Your task to perform on an android device: open app "Google Play services" Image 0: 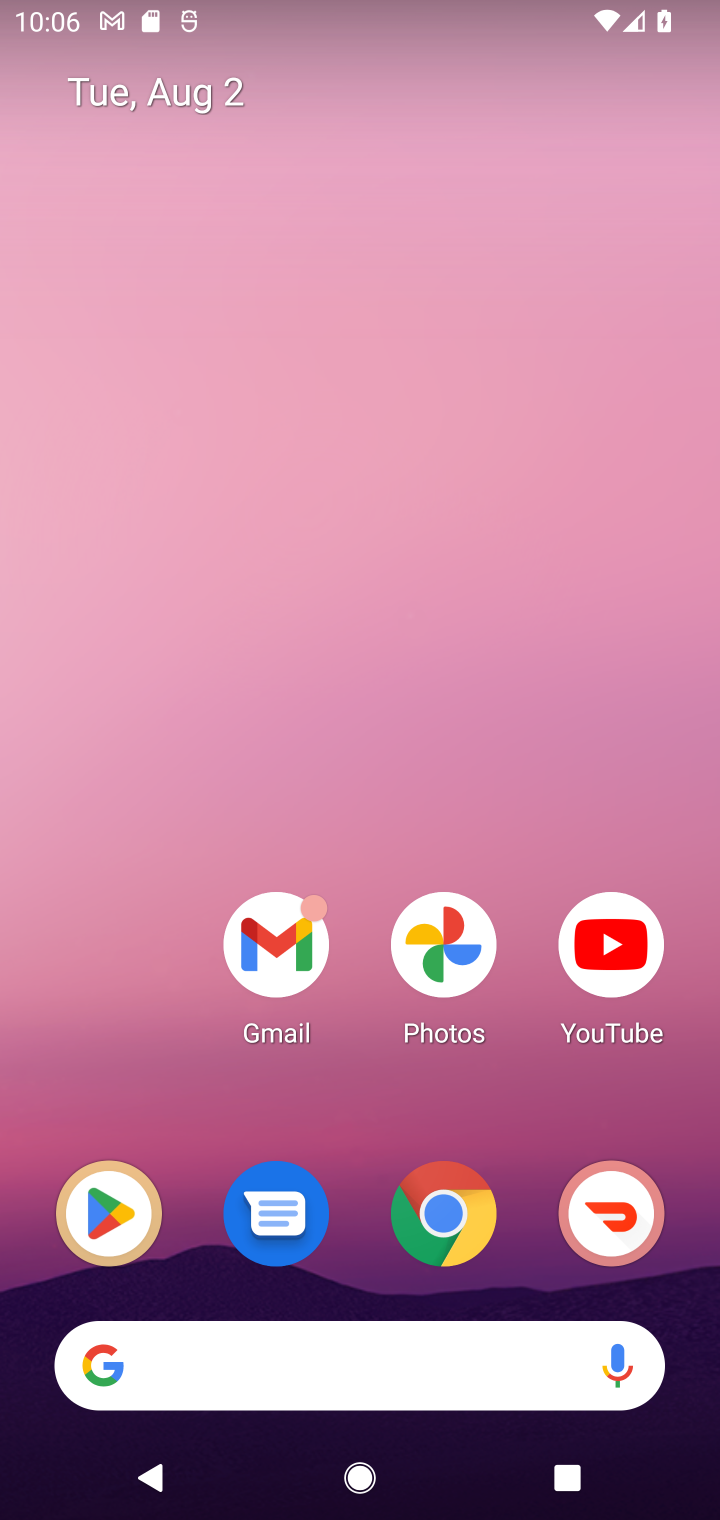
Step 0: drag from (345, 1252) to (421, 106)
Your task to perform on an android device: open app "Google Play services" Image 1: 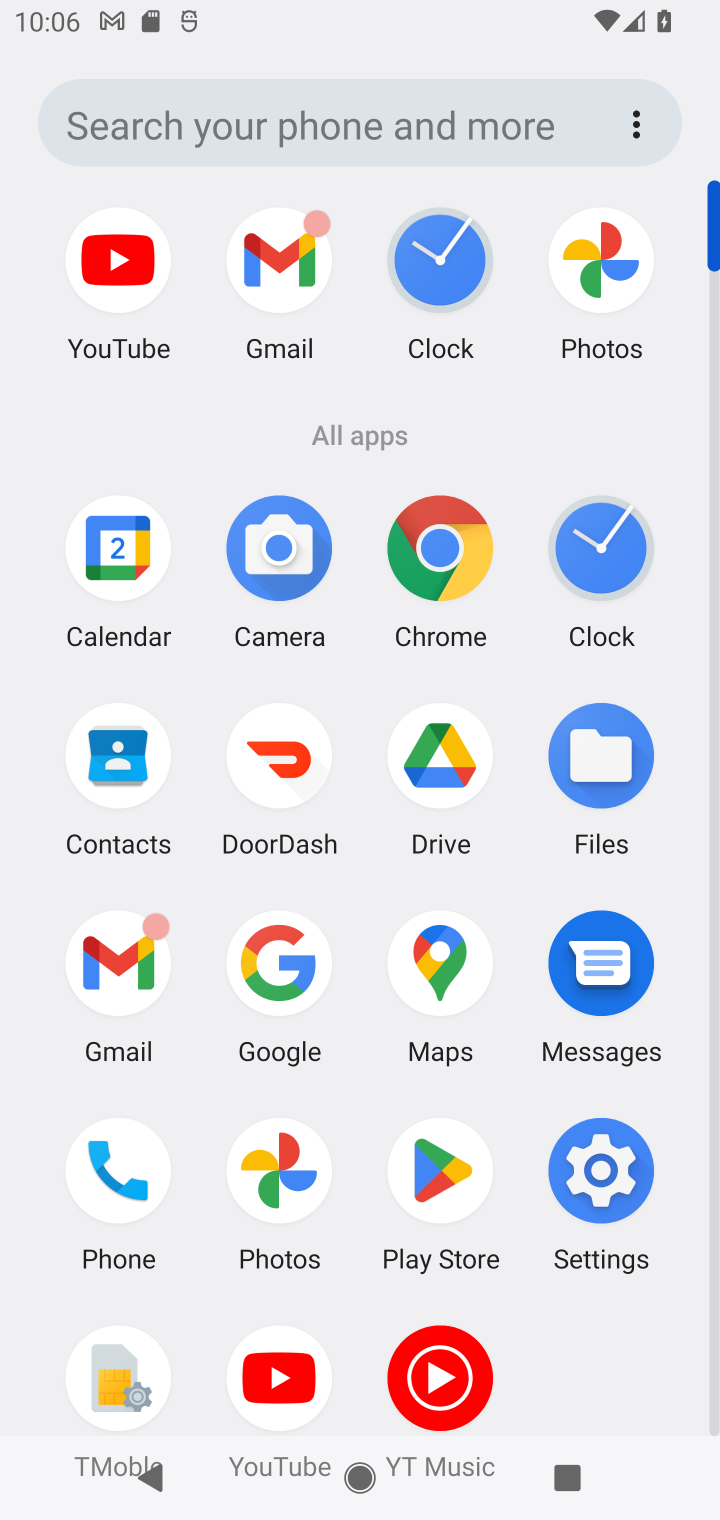
Step 1: click (413, 1229)
Your task to perform on an android device: open app "Google Play services" Image 2: 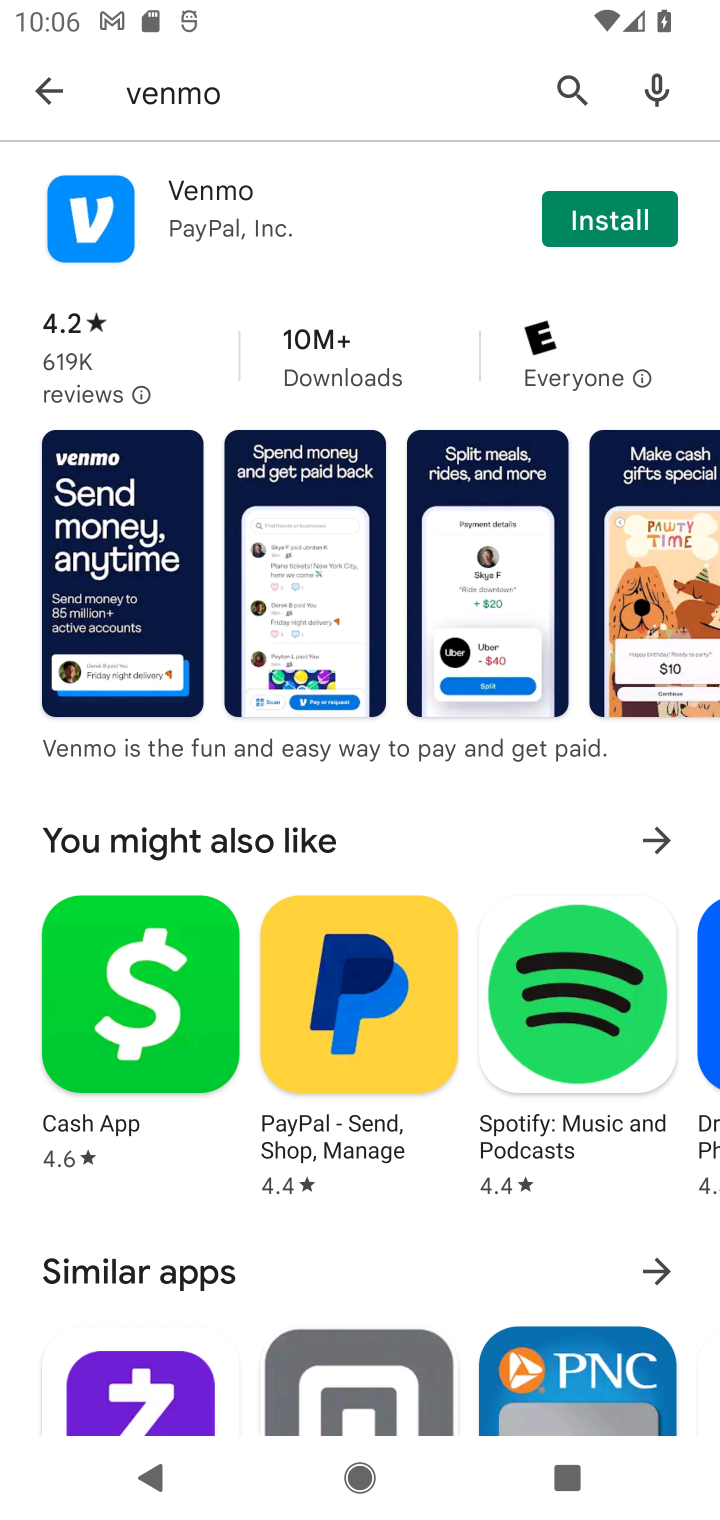
Step 2: click (44, 78)
Your task to perform on an android device: open app "Google Play services" Image 3: 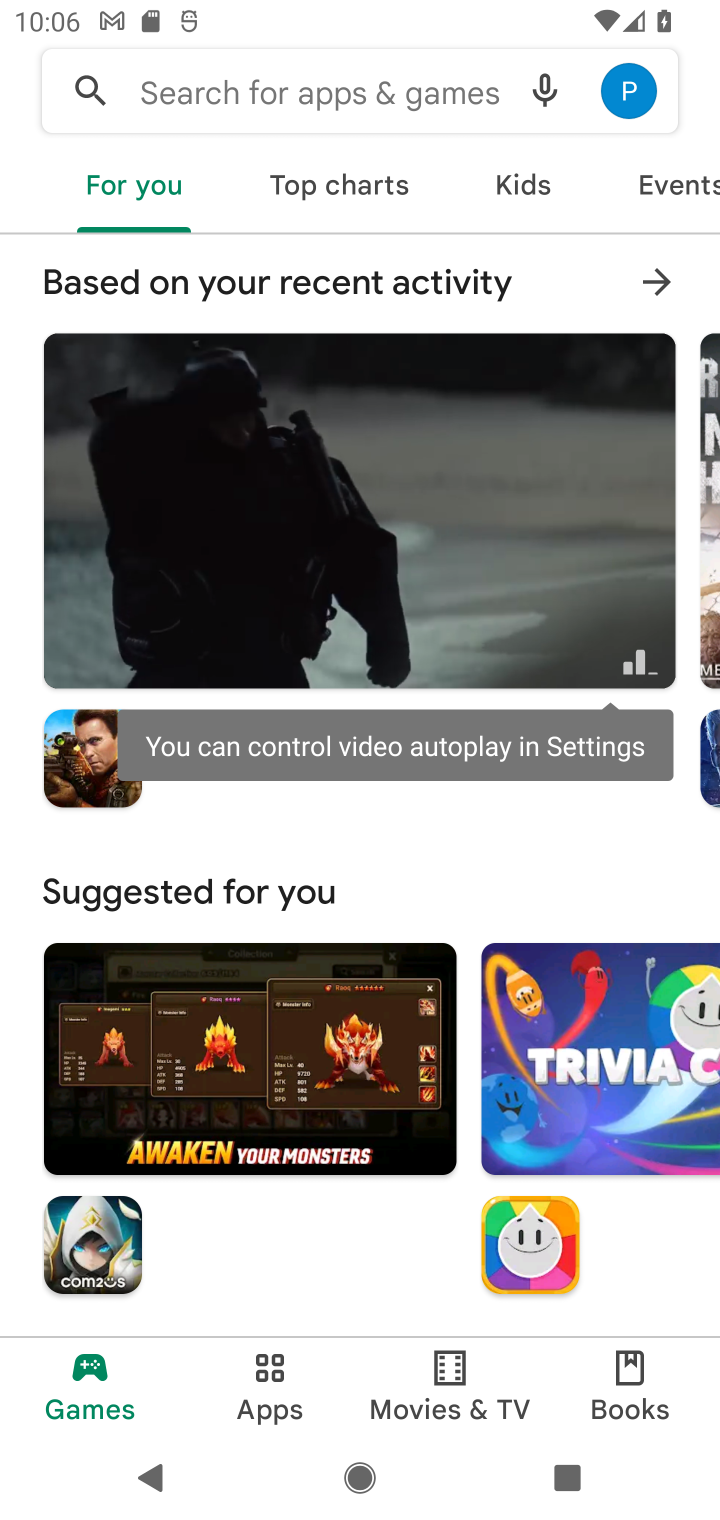
Step 3: click (208, 105)
Your task to perform on an android device: open app "Google Play services" Image 4: 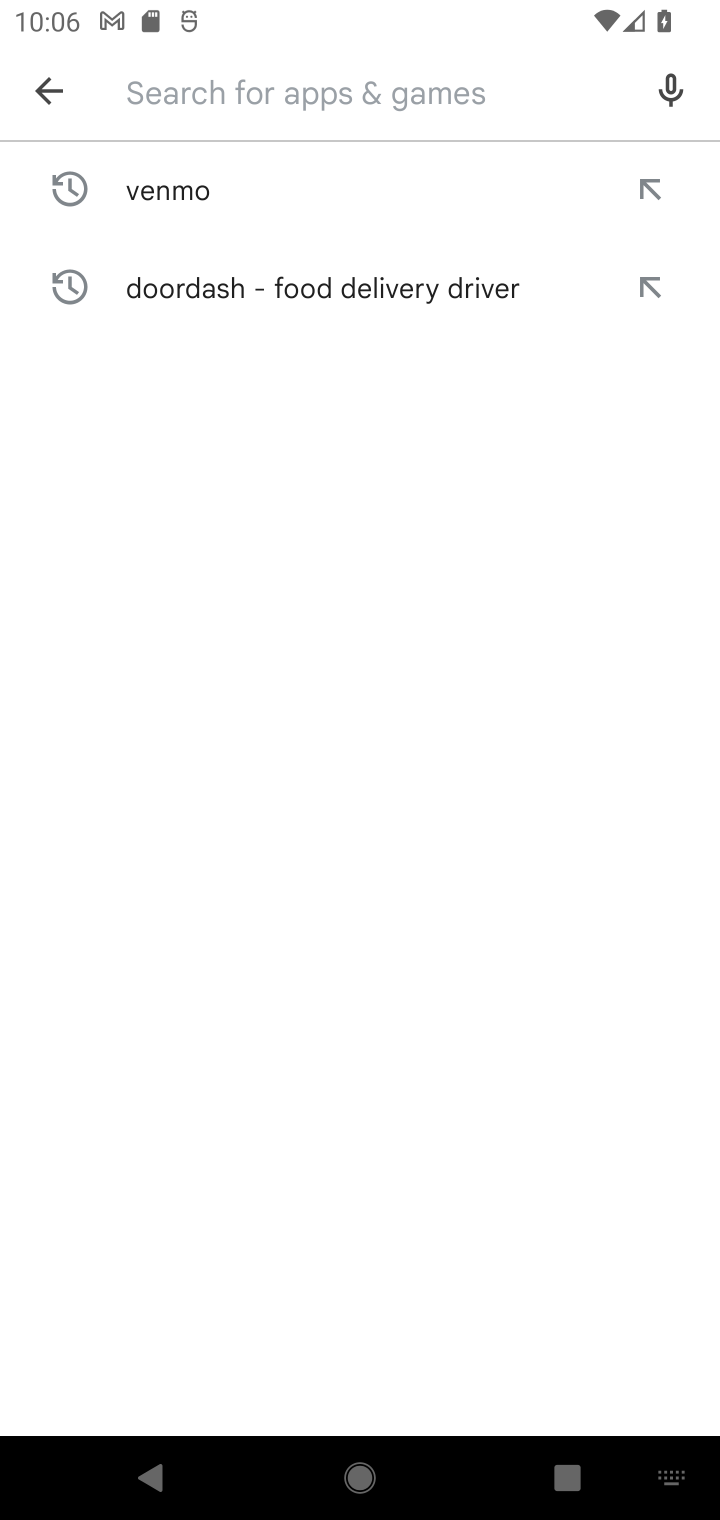
Step 4: type "Google Play services"
Your task to perform on an android device: open app "Google Play services" Image 5: 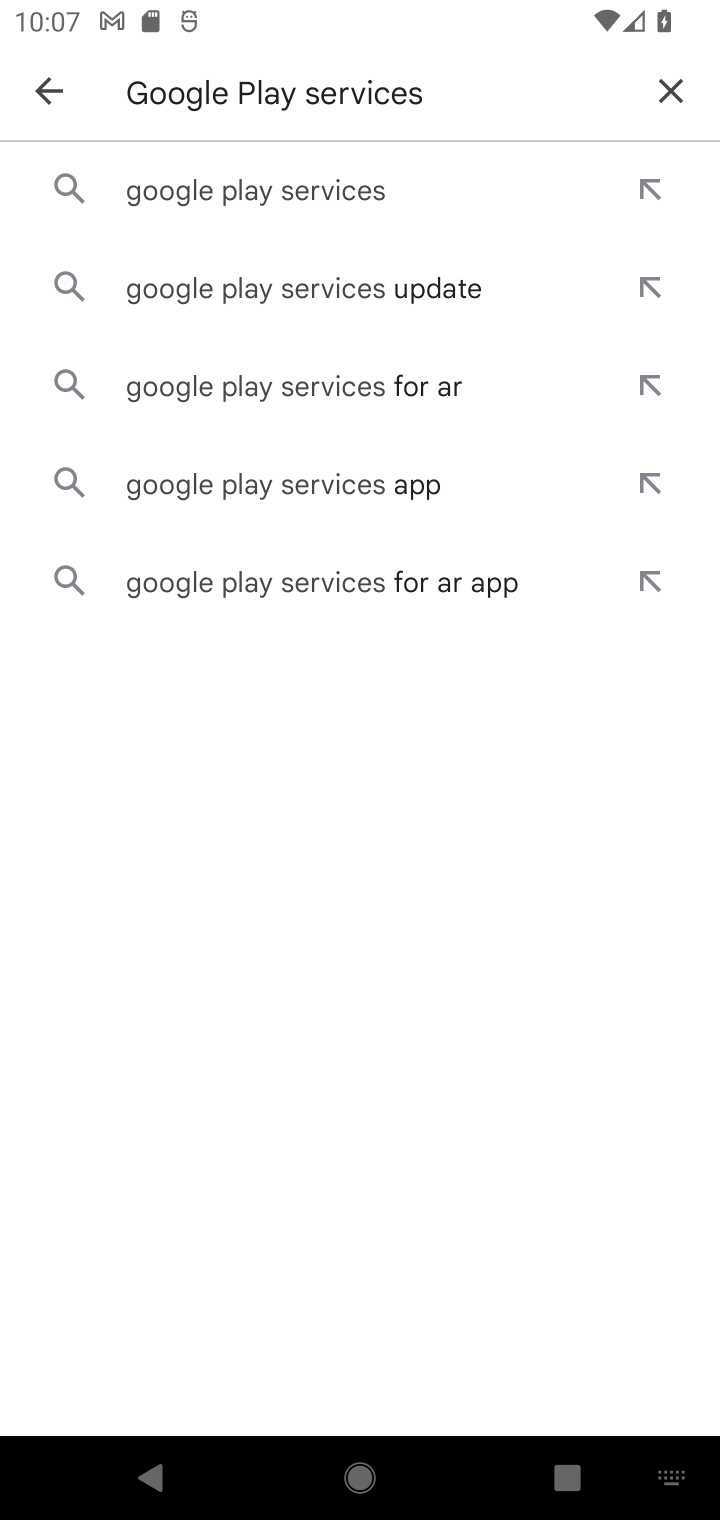
Step 5: click (328, 194)
Your task to perform on an android device: open app "Google Play services" Image 6: 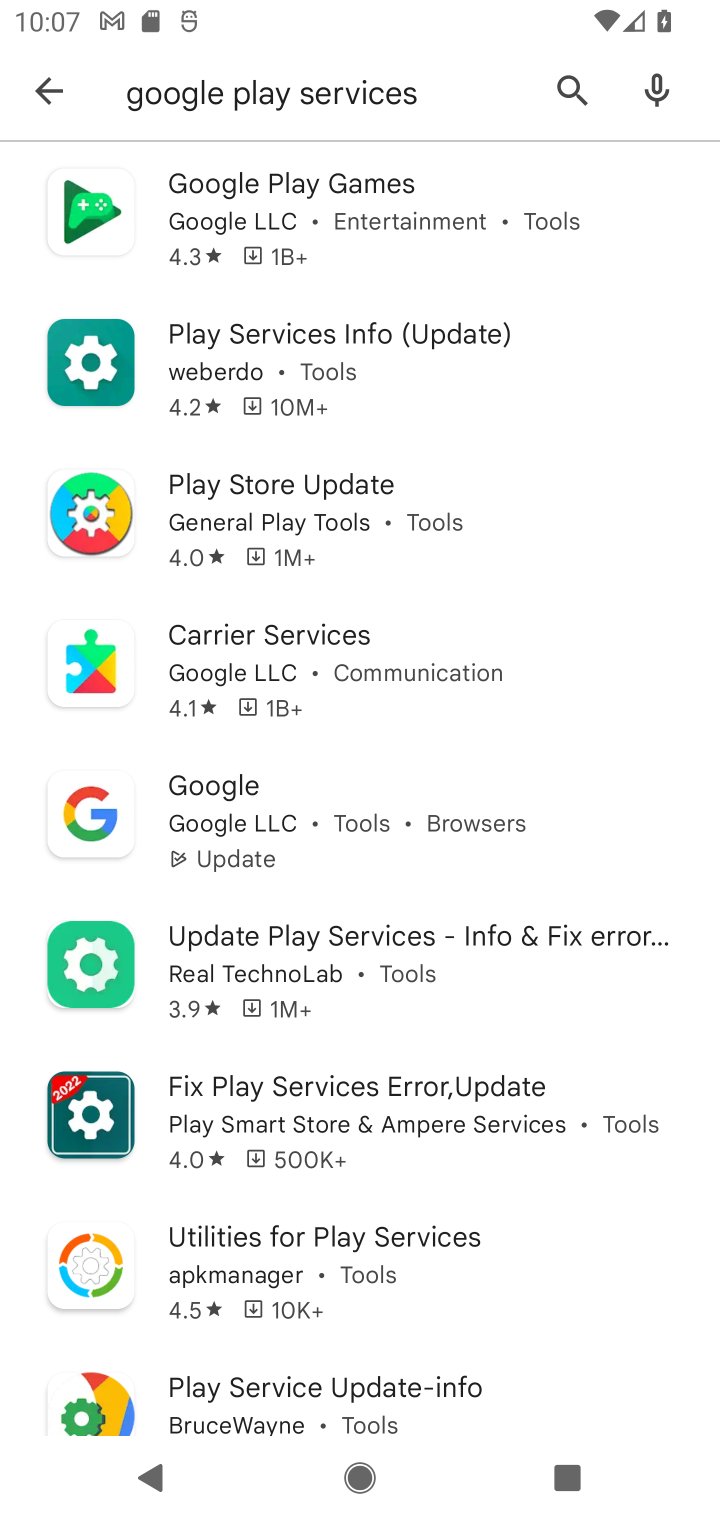
Step 6: task complete